Your task to perform on an android device: turn off notifications settings in the gmail app Image 0: 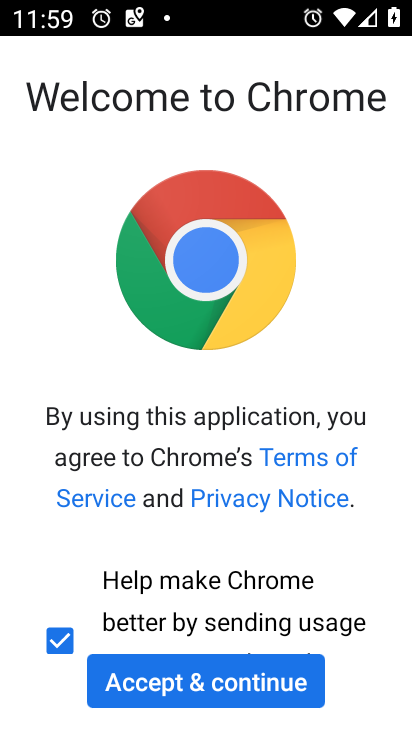
Step 0: press back button
Your task to perform on an android device: turn off notifications settings in the gmail app Image 1: 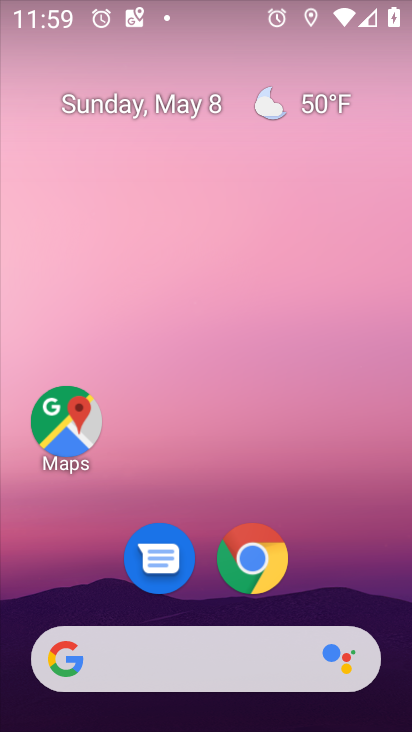
Step 1: drag from (217, 645) to (244, 271)
Your task to perform on an android device: turn off notifications settings in the gmail app Image 2: 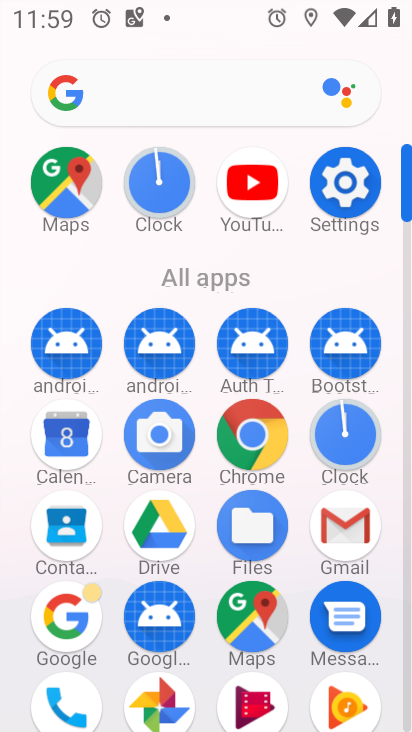
Step 2: click (317, 549)
Your task to perform on an android device: turn off notifications settings in the gmail app Image 3: 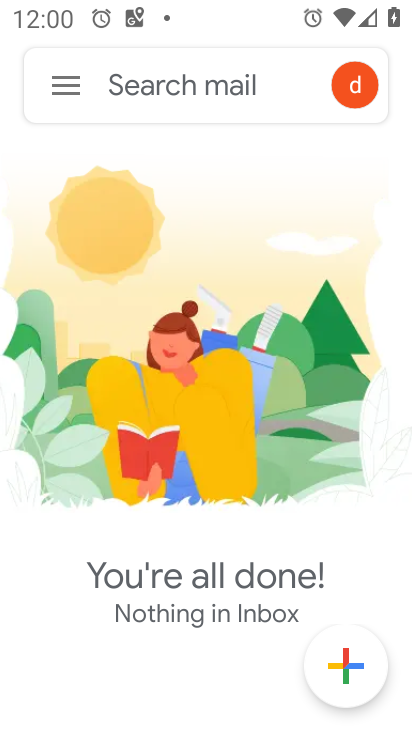
Step 3: press home button
Your task to perform on an android device: turn off notifications settings in the gmail app Image 4: 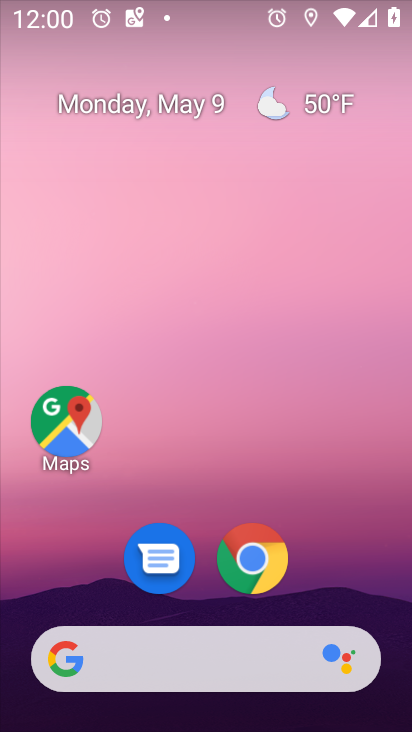
Step 4: drag from (230, 631) to (213, 181)
Your task to perform on an android device: turn off notifications settings in the gmail app Image 5: 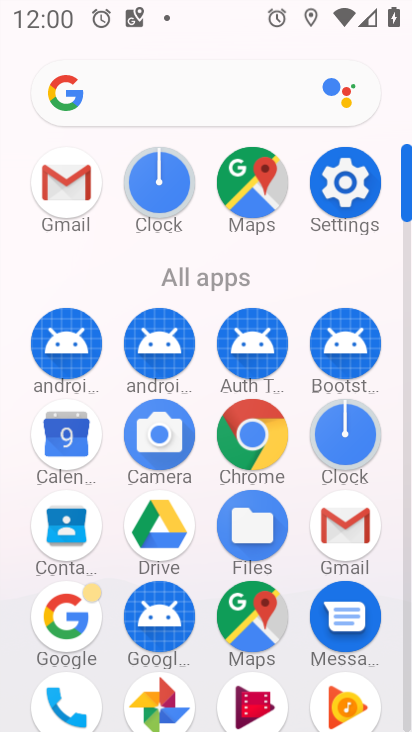
Step 5: click (330, 510)
Your task to perform on an android device: turn off notifications settings in the gmail app Image 6: 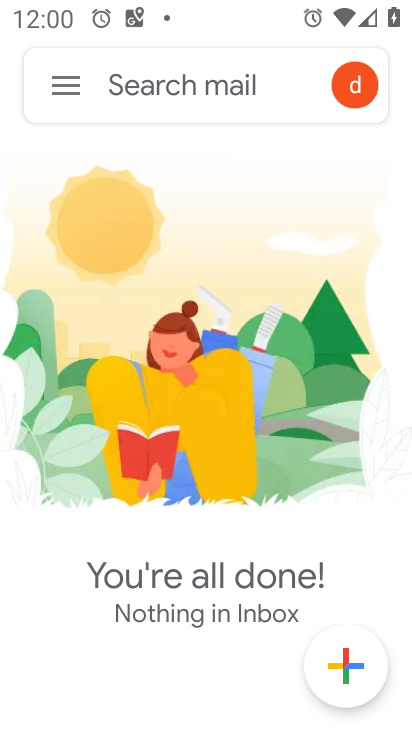
Step 6: click (70, 84)
Your task to perform on an android device: turn off notifications settings in the gmail app Image 7: 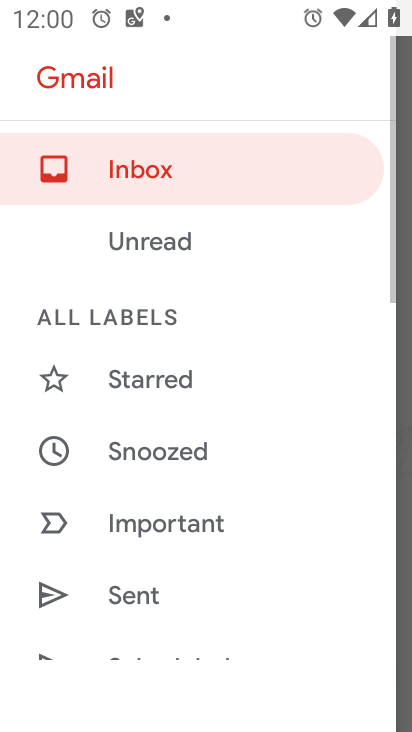
Step 7: drag from (122, 549) to (101, 170)
Your task to perform on an android device: turn off notifications settings in the gmail app Image 8: 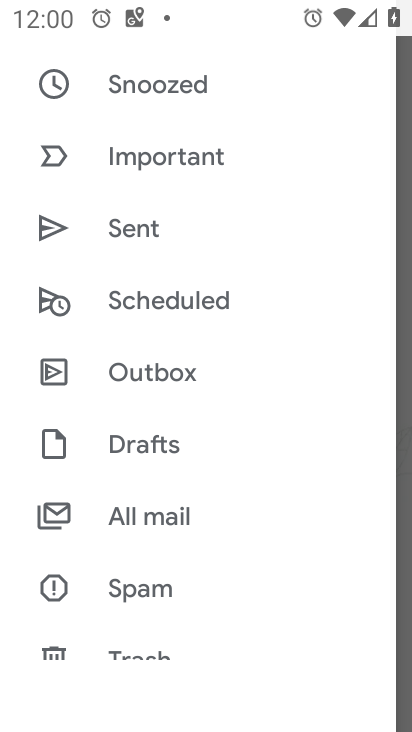
Step 8: drag from (189, 564) to (164, 169)
Your task to perform on an android device: turn off notifications settings in the gmail app Image 9: 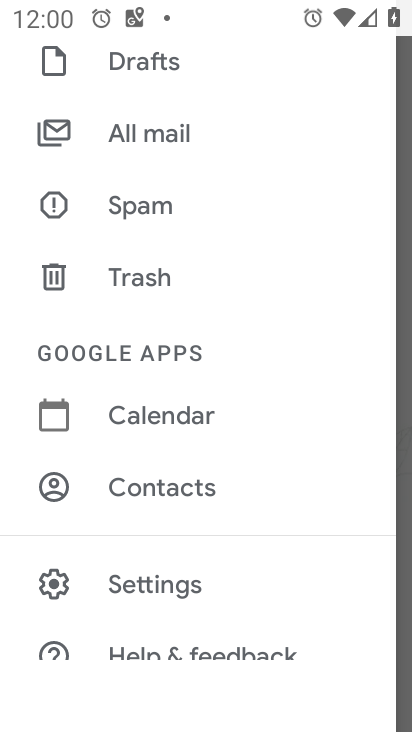
Step 9: click (162, 596)
Your task to perform on an android device: turn off notifications settings in the gmail app Image 10: 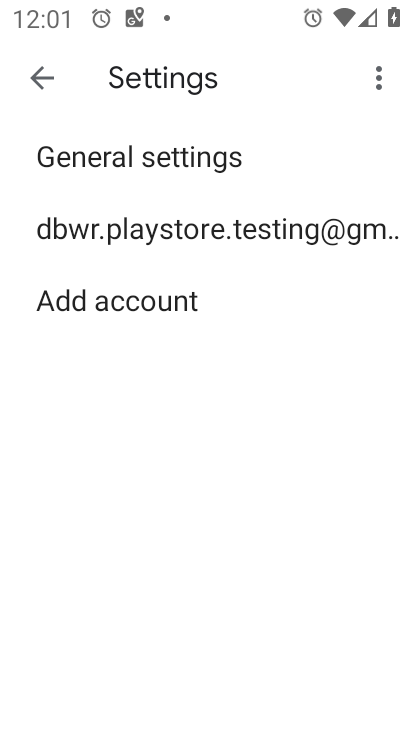
Step 10: click (178, 236)
Your task to perform on an android device: turn off notifications settings in the gmail app Image 11: 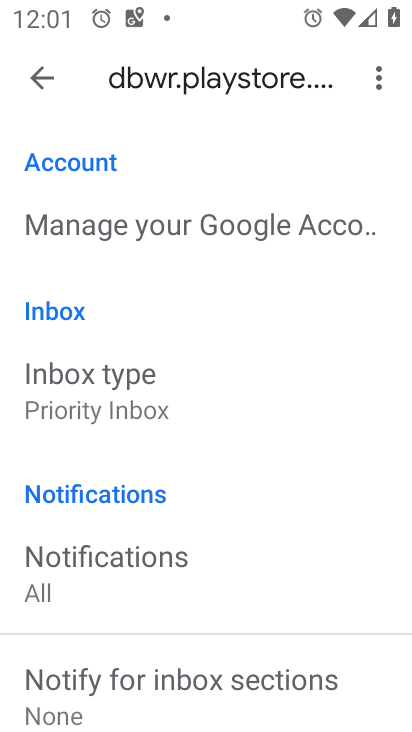
Step 11: drag from (164, 581) to (153, 240)
Your task to perform on an android device: turn off notifications settings in the gmail app Image 12: 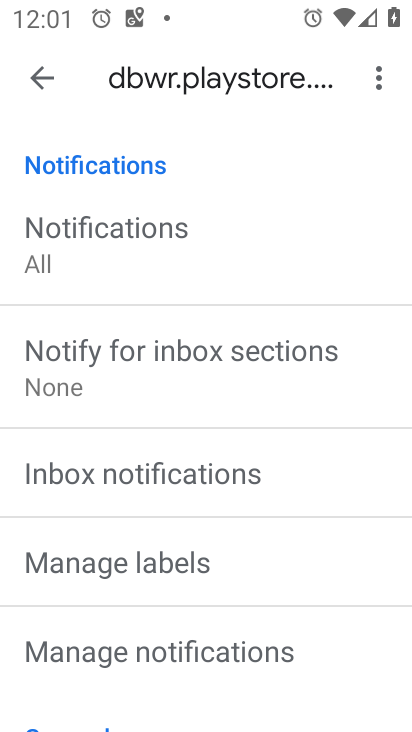
Step 12: click (179, 650)
Your task to perform on an android device: turn off notifications settings in the gmail app Image 13: 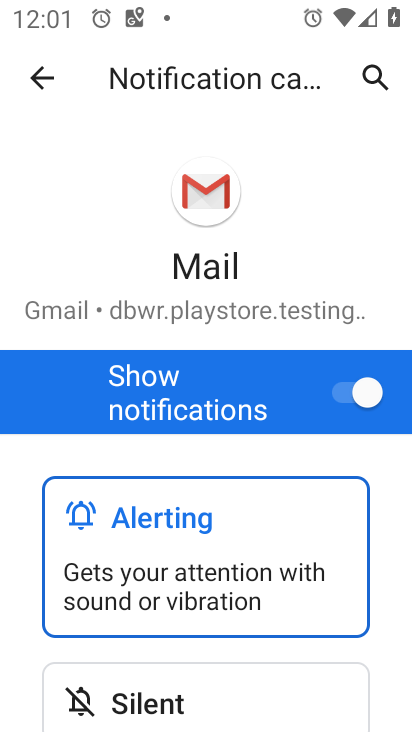
Step 13: click (368, 390)
Your task to perform on an android device: turn off notifications settings in the gmail app Image 14: 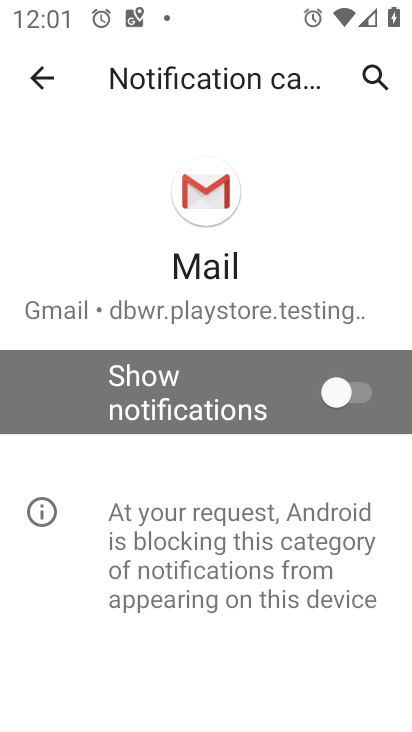
Step 14: task complete